Your task to perform on an android device: toggle location history Image 0: 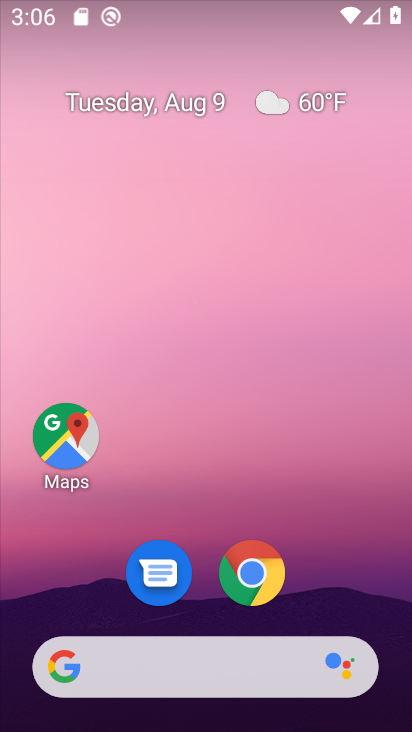
Step 0: drag from (332, 572) to (220, 205)
Your task to perform on an android device: toggle location history Image 1: 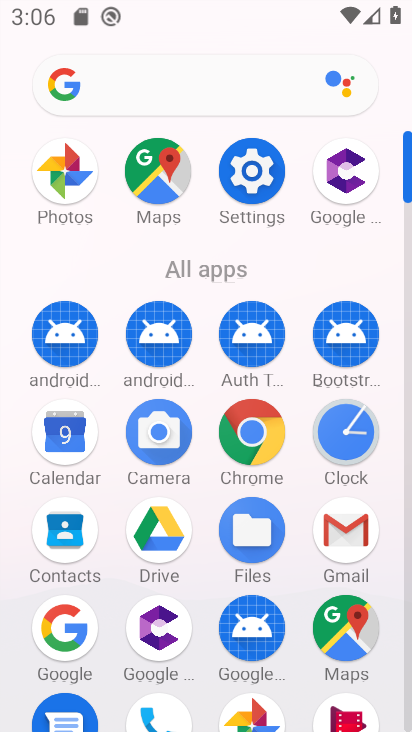
Step 1: click (246, 175)
Your task to perform on an android device: toggle location history Image 2: 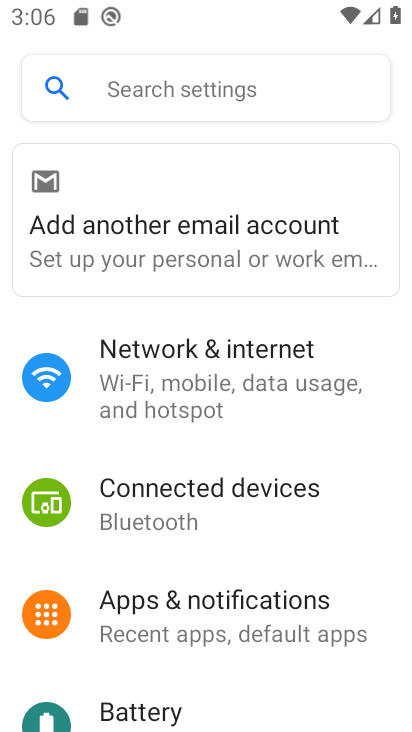
Step 2: drag from (214, 663) to (118, 289)
Your task to perform on an android device: toggle location history Image 3: 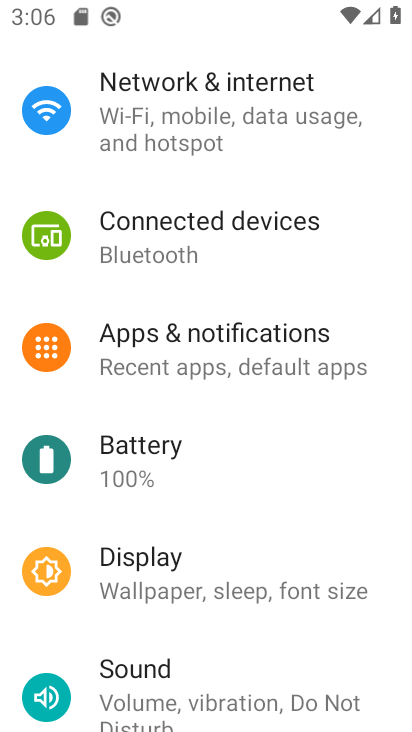
Step 3: drag from (273, 629) to (78, 71)
Your task to perform on an android device: toggle location history Image 4: 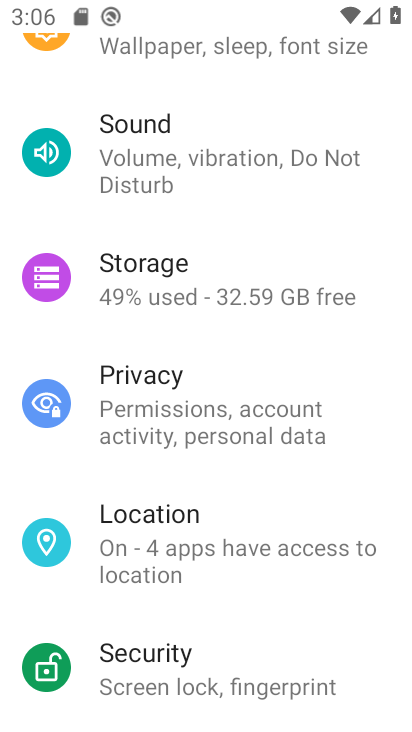
Step 4: click (238, 548)
Your task to perform on an android device: toggle location history Image 5: 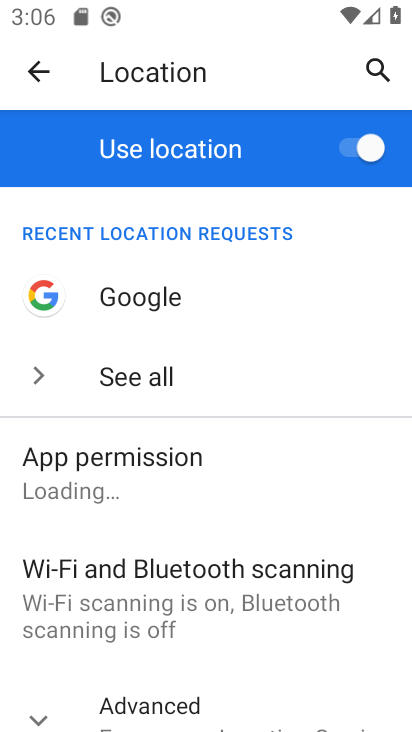
Step 5: drag from (308, 509) to (225, 250)
Your task to perform on an android device: toggle location history Image 6: 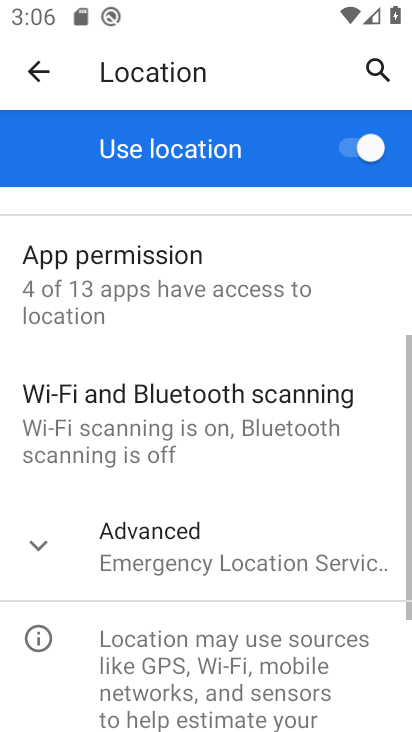
Step 6: click (204, 526)
Your task to perform on an android device: toggle location history Image 7: 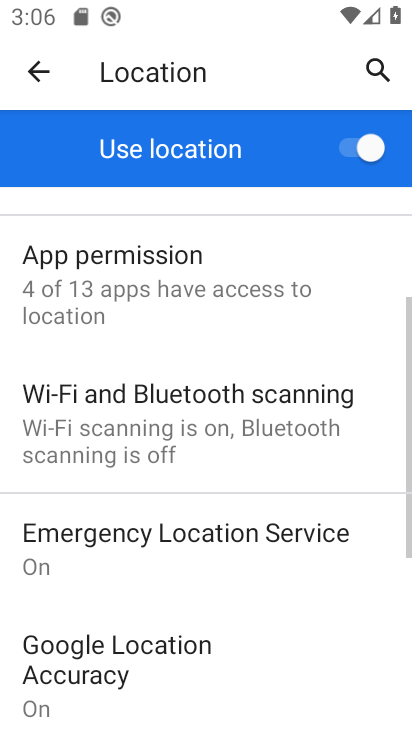
Step 7: drag from (330, 674) to (217, 315)
Your task to perform on an android device: toggle location history Image 8: 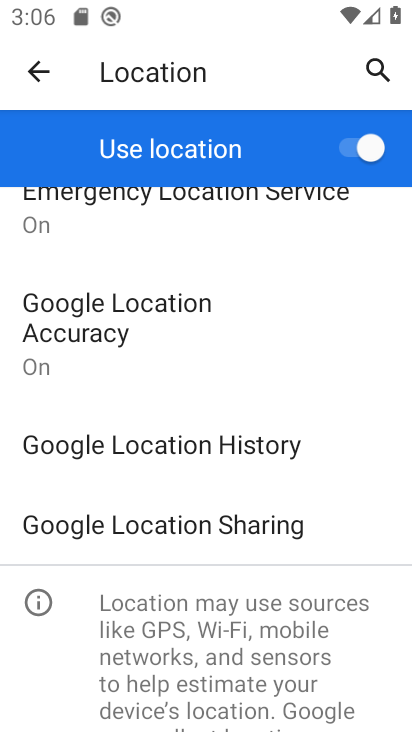
Step 8: click (221, 458)
Your task to perform on an android device: toggle location history Image 9: 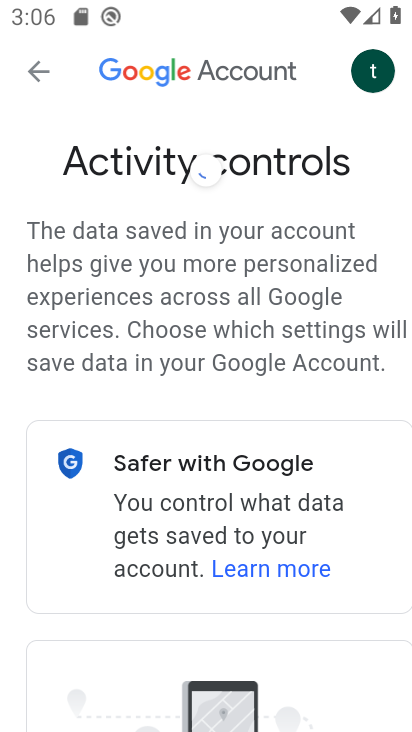
Step 9: task complete